Your task to perform on an android device: Search for razer naga on newegg, select the first entry, add it to the cart, then select checkout. Image 0: 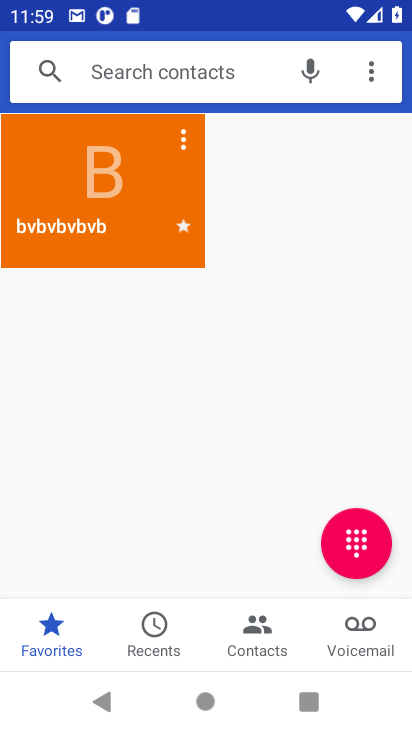
Step 0: press home button
Your task to perform on an android device: Search for razer naga on newegg, select the first entry, add it to the cart, then select checkout. Image 1: 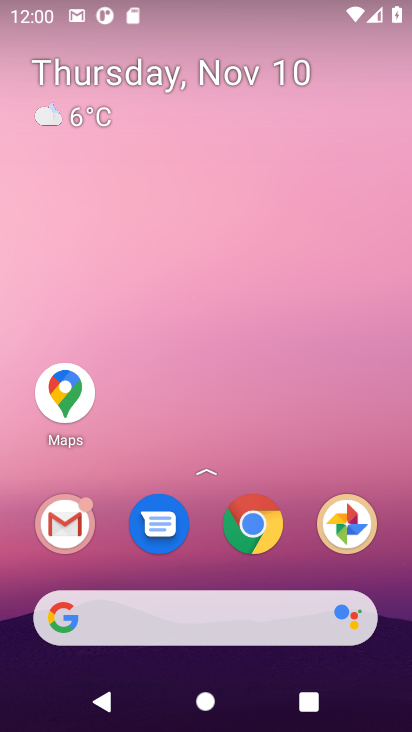
Step 1: click (254, 521)
Your task to perform on an android device: Search for razer naga on newegg, select the first entry, add it to the cart, then select checkout. Image 2: 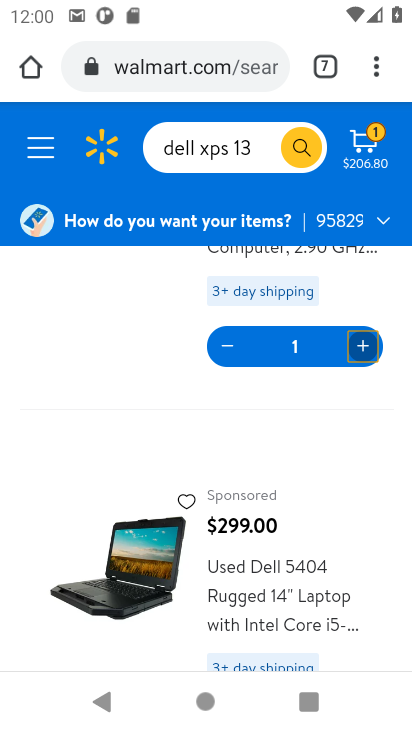
Step 2: click (320, 60)
Your task to perform on an android device: Search for razer naga on newegg, select the first entry, add it to the cart, then select checkout. Image 3: 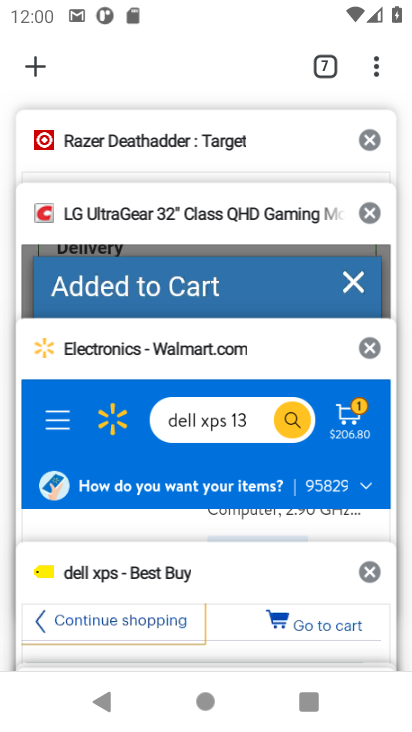
Step 3: drag from (166, 620) to (261, 260)
Your task to perform on an android device: Search for razer naga on newegg, select the first entry, add it to the cart, then select checkout. Image 4: 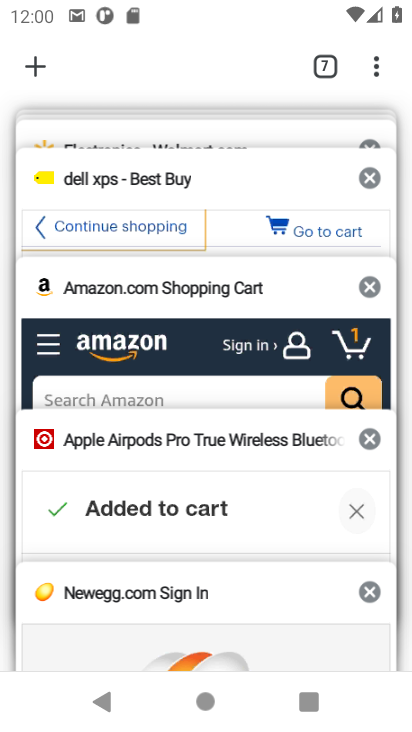
Step 4: click (158, 600)
Your task to perform on an android device: Search for razer naga on newegg, select the first entry, add it to the cart, then select checkout. Image 5: 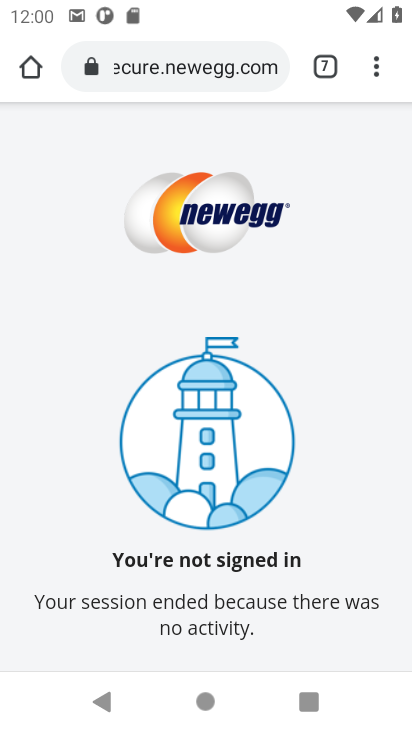
Step 5: press back button
Your task to perform on an android device: Search for razer naga on newegg, select the first entry, add it to the cart, then select checkout. Image 6: 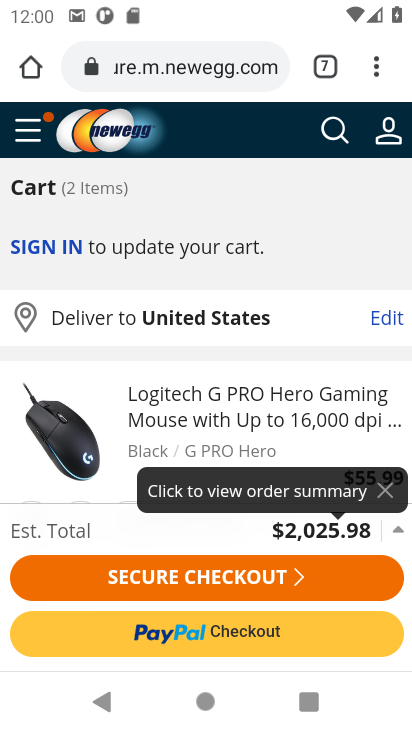
Step 6: click (339, 126)
Your task to perform on an android device: Search for razer naga on newegg, select the first entry, add it to the cart, then select checkout. Image 7: 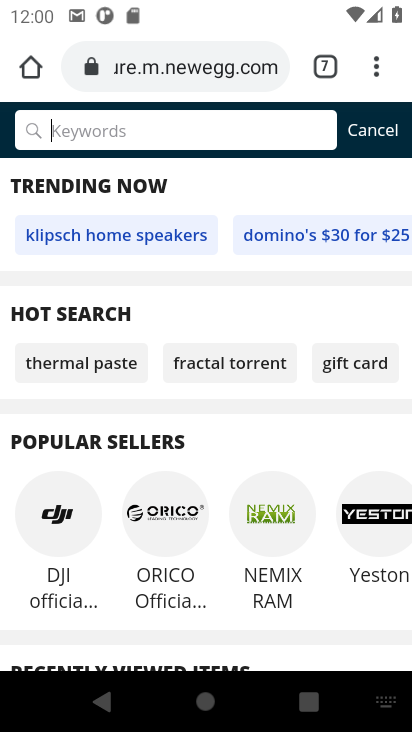
Step 7: type "razer naga"
Your task to perform on an android device: Search for razer naga on newegg, select the first entry, add it to the cart, then select checkout. Image 8: 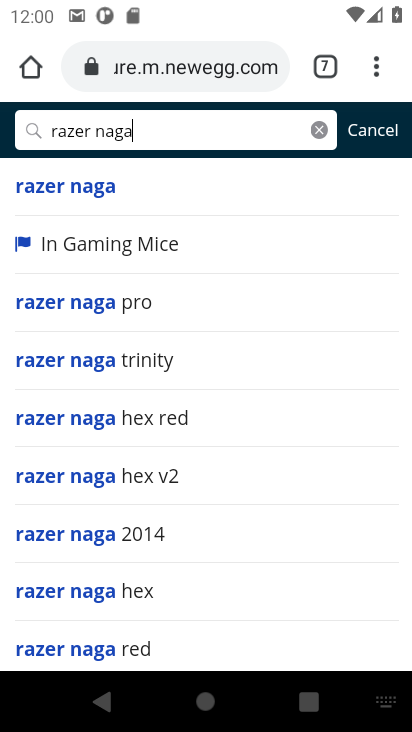
Step 8: click (21, 192)
Your task to perform on an android device: Search for razer naga on newegg, select the first entry, add it to the cart, then select checkout. Image 9: 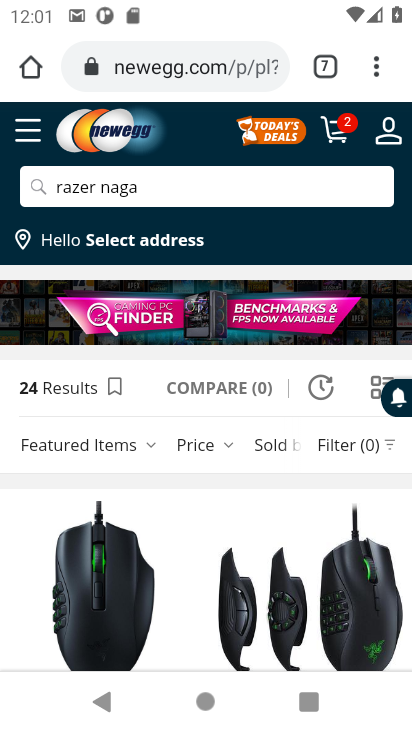
Step 9: drag from (187, 610) to (315, 113)
Your task to perform on an android device: Search for razer naga on newegg, select the first entry, add it to the cart, then select checkout. Image 10: 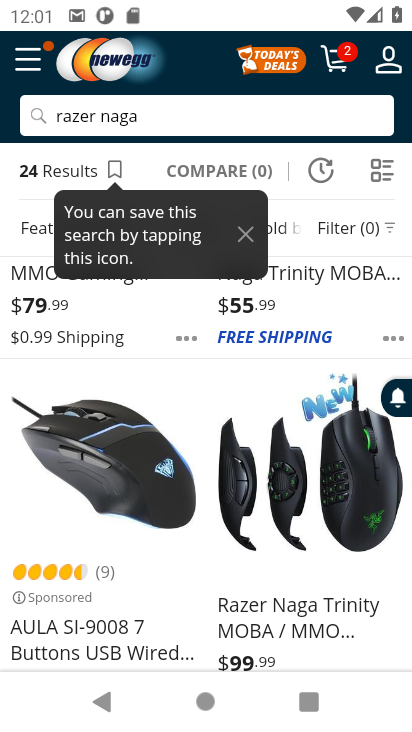
Step 10: click (286, 613)
Your task to perform on an android device: Search for razer naga on newegg, select the first entry, add it to the cart, then select checkout. Image 11: 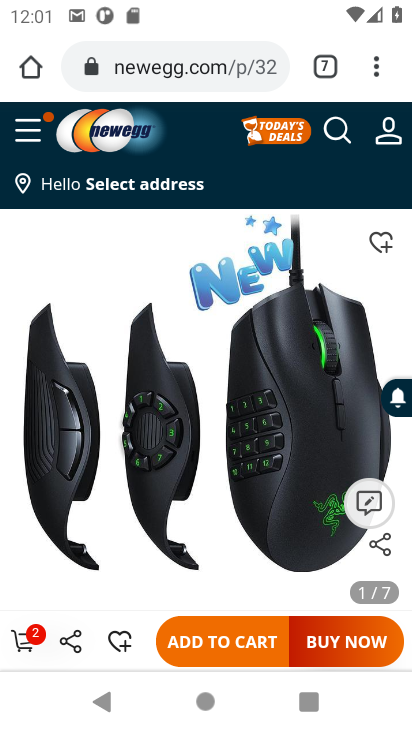
Step 11: click (236, 642)
Your task to perform on an android device: Search for razer naga on newegg, select the first entry, add it to the cart, then select checkout. Image 12: 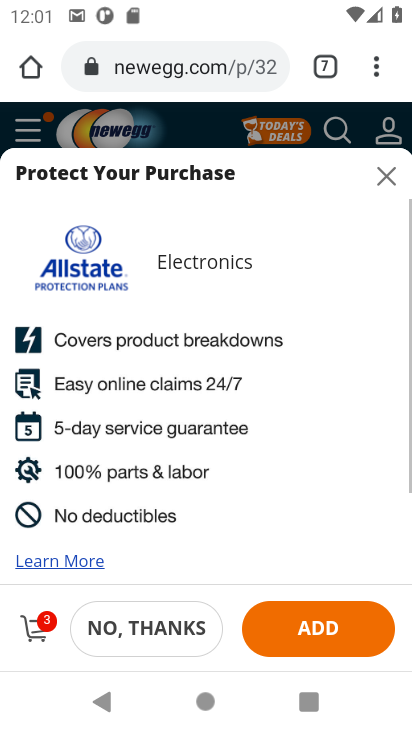
Step 12: click (33, 625)
Your task to perform on an android device: Search for razer naga on newegg, select the first entry, add it to the cart, then select checkout. Image 13: 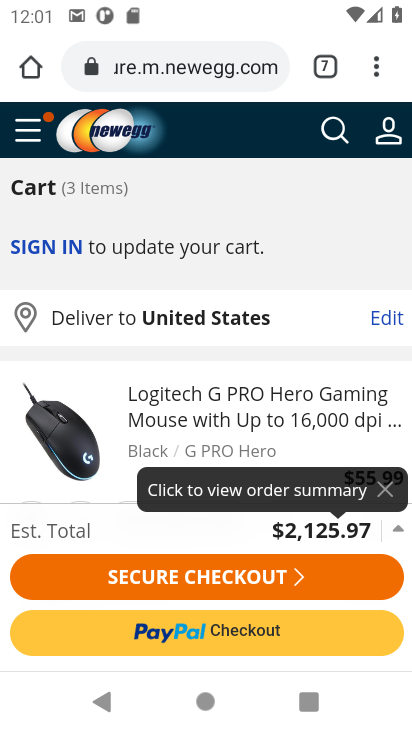
Step 13: click (203, 570)
Your task to perform on an android device: Search for razer naga on newegg, select the first entry, add it to the cart, then select checkout. Image 14: 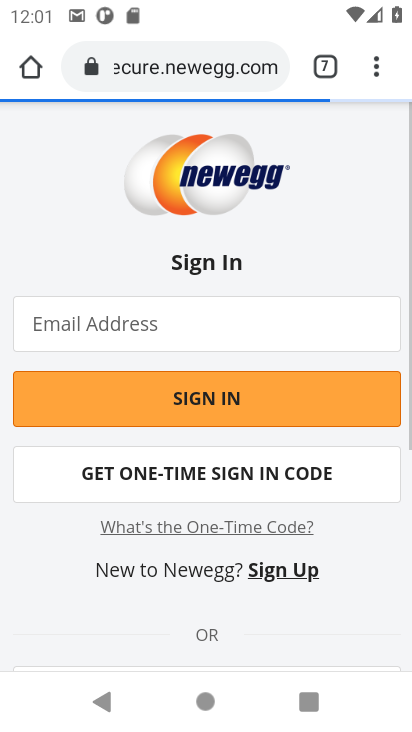
Step 14: task complete